Your task to perform on an android device: Do I have any events today? Image 0: 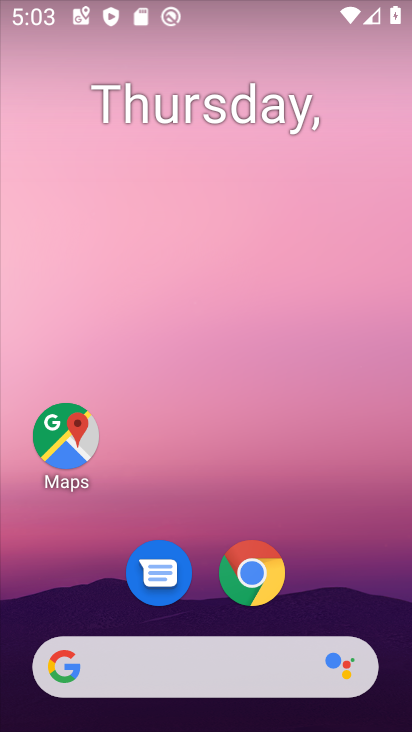
Step 0: drag from (318, 583) to (237, 69)
Your task to perform on an android device: Do I have any events today? Image 1: 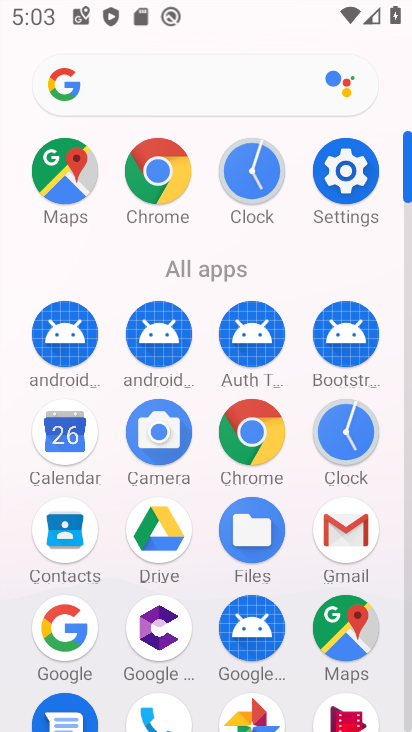
Step 1: drag from (10, 503) to (19, 193)
Your task to perform on an android device: Do I have any events today? Image 2: 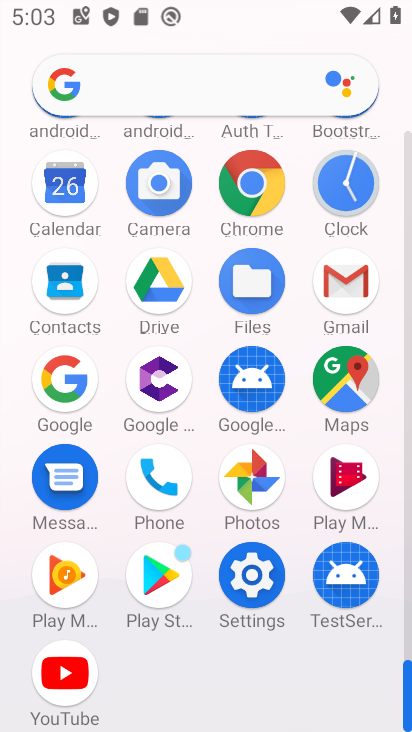
Step 2: drag from (25, 316) to (25, 465)
Your task to perform on an android device: Do I have any events today? Image 3: 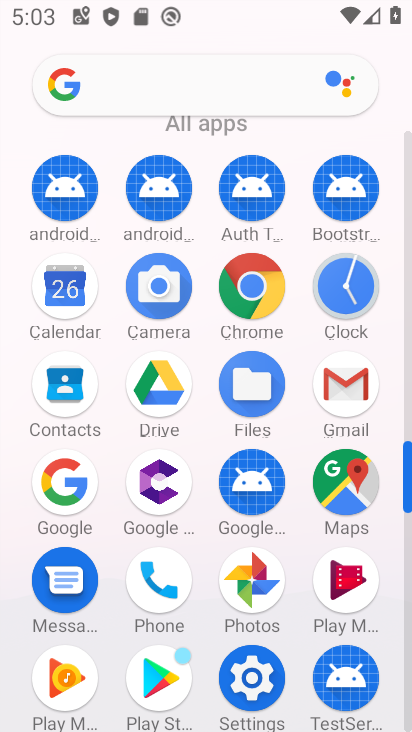
Step 3: click (58, 282)
Your task to perform on an android device: Do I have any events today? Image 4: 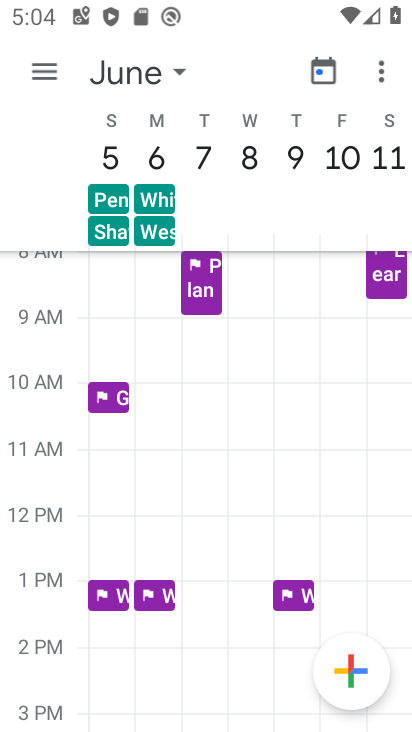
Step 4: click (315, 68)
Your task to perform on an android device: Do I have any events today? Image 5: 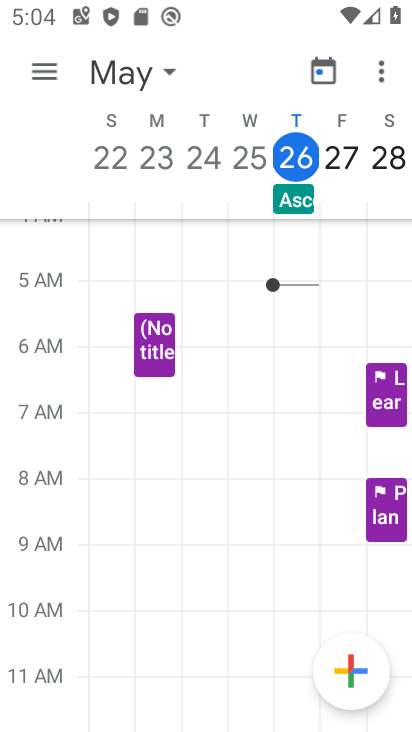
Step 5: click (307, 156)
Your task to perform on an android device: Do I have any events today? Image 6: 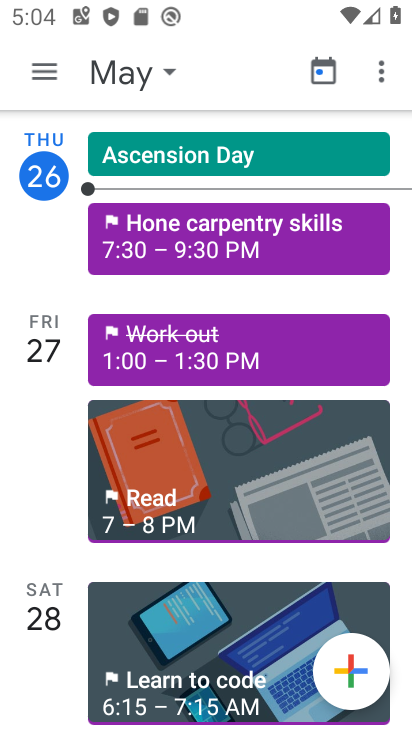
Step 6: task complete